Your task to perform on an android device: Open the Play Movies app and select the watchlist tab. Image 0: 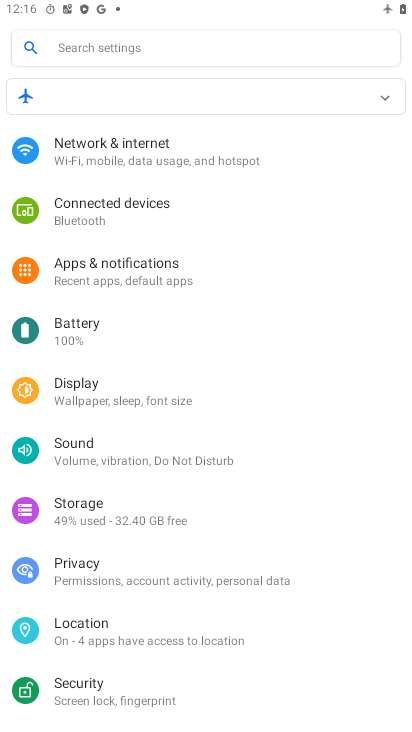
Step 0: drag from (245, 571) to (263, 287)
Your task to perform on an android device: Open the Play Movies app and select the watchlist tab. Image 1: 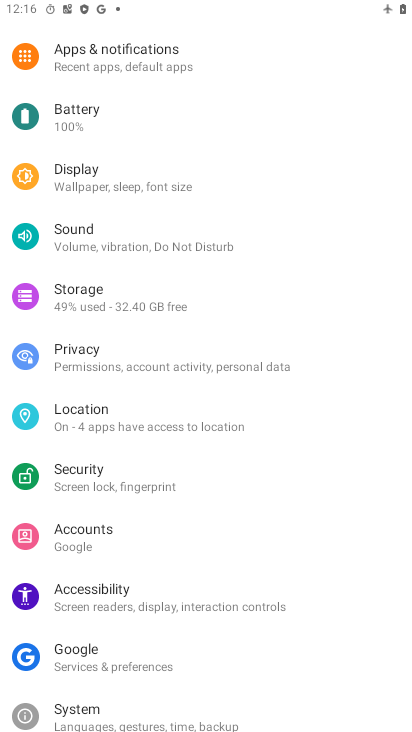
Step 1: press home button
Your task to perform on an android device: Open the Play Movies app and select the watchlist tab. Image 2: 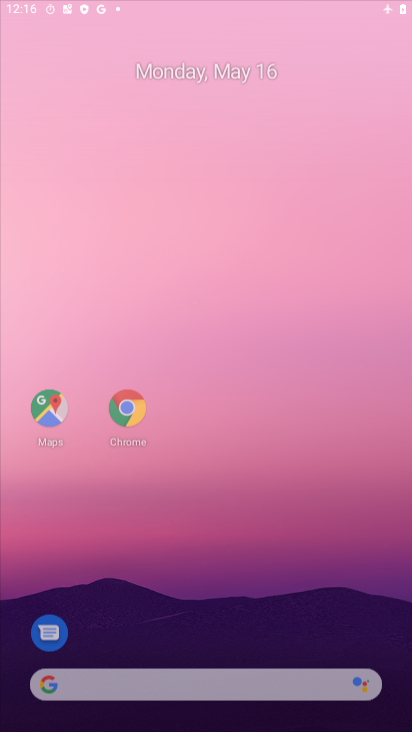
Step 2: drag from (129, 584) to (224, 96)
Your task to perform on an android device: Open the Play Movies app and select the watchlist tab. Image 3: 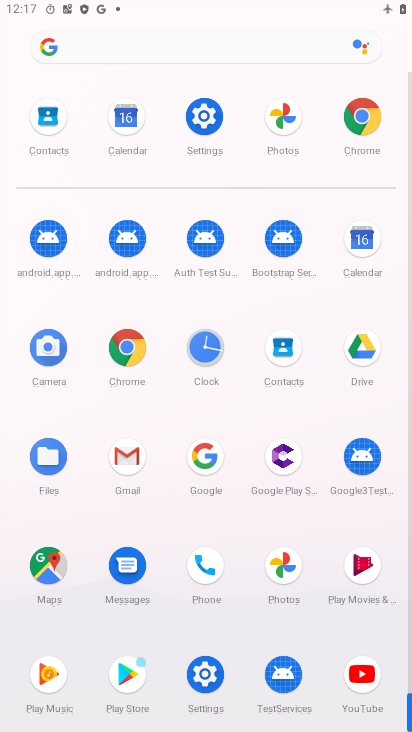
Step 3: click (360, 551)
Your task to perform on an android device: Open the Play Movies app and select the watchlist tab. Image 4: 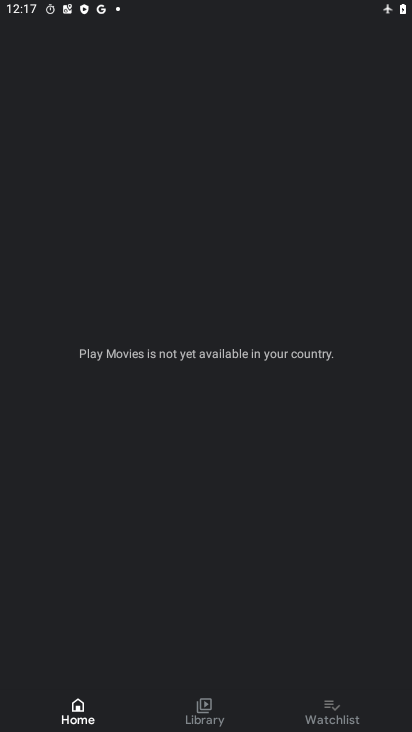
Step 4: click (338, 710)
Your task to perform on an android device: Open the Play Movies app and select the watchlist tab. Image 5: 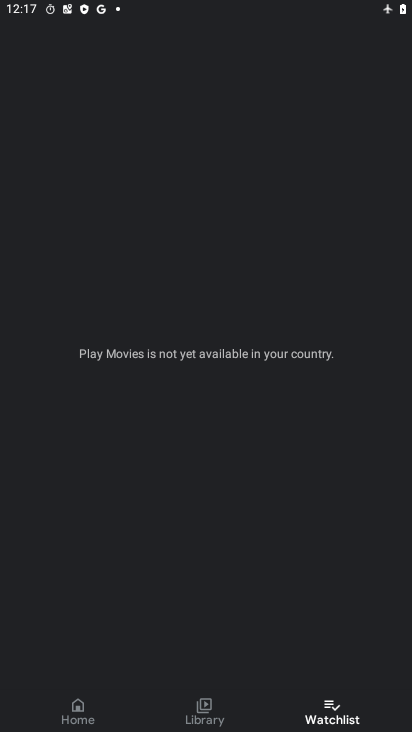
Step 5: task complete